Your task to perform on an android device: turn vacation reply on in the gmail app Image 0: 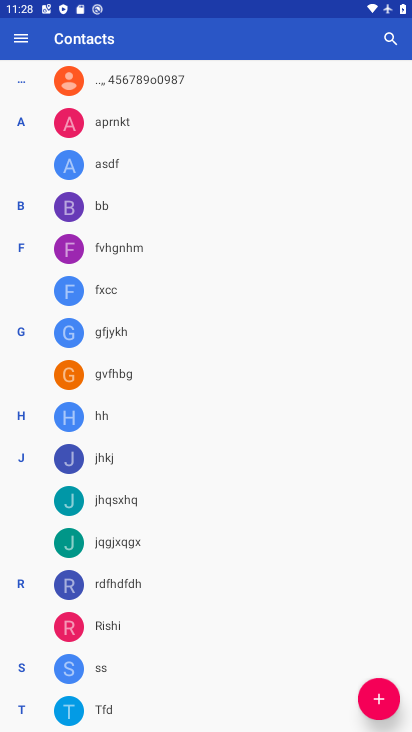
Step 0: press home button
Your task to perform on an android device: turn vacation reply on in the gmail app Image 1: 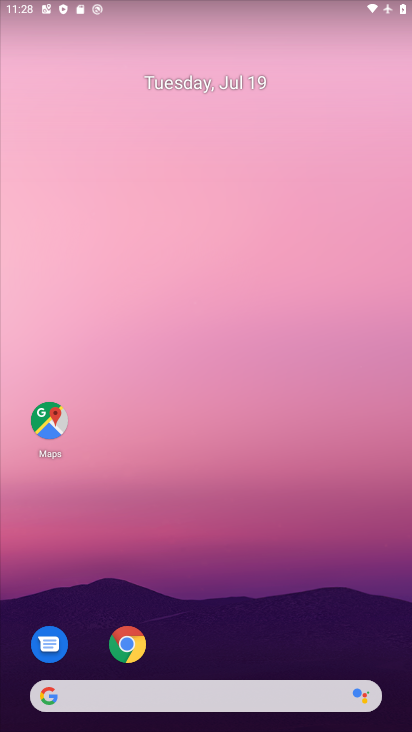
Step 1: drag from (27, 671) to (310, 21)
Your task to perform on an android device: turn vacation reply on in the gmail app Image 2: 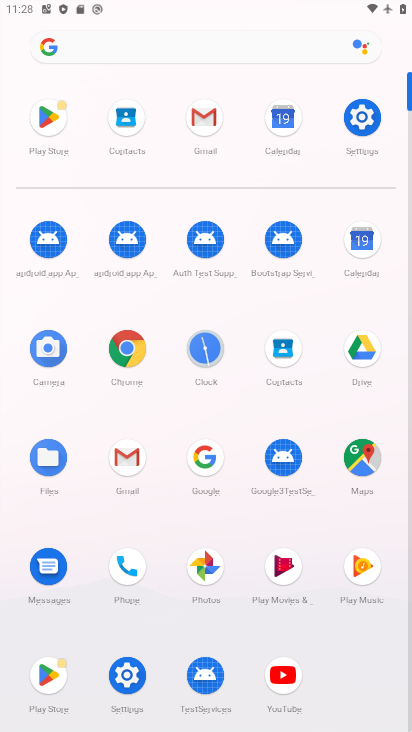
Step 2: click (141, 449)
Your task to perform on an android device: turn vacation reply on in the gmail app Image 3: 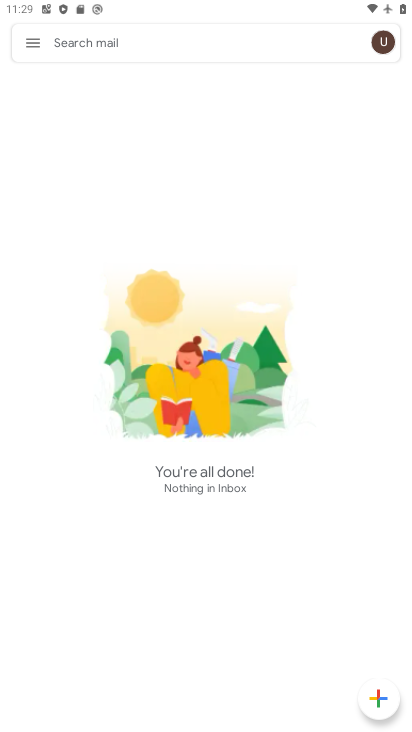
Step 3: click (27, 39)
Your task to perform on an android device: turn vacation reply on in the gmail app Image 4: 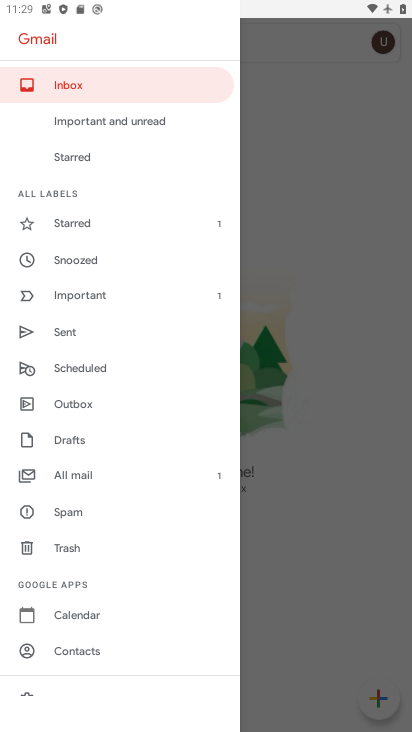
Step 4: drag from (98, 625) to (178, 218)
Your task to perform on an android device: turn vacation reply on in the gmail app Image 5: 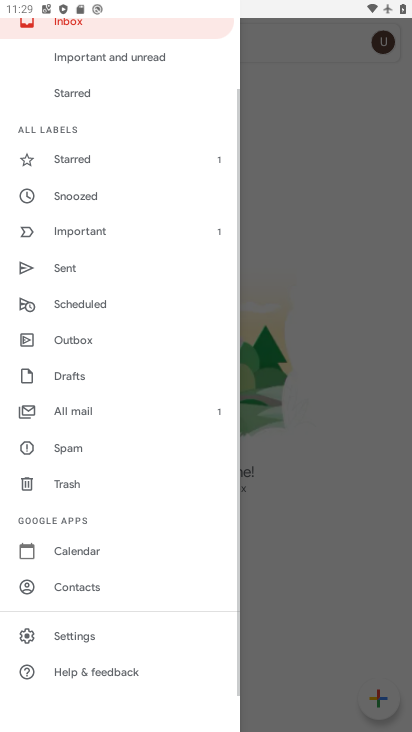
Step 5: click (99, 632)
Your task to perform on an android device: turn vacation reply on in the gmail app Image 6: 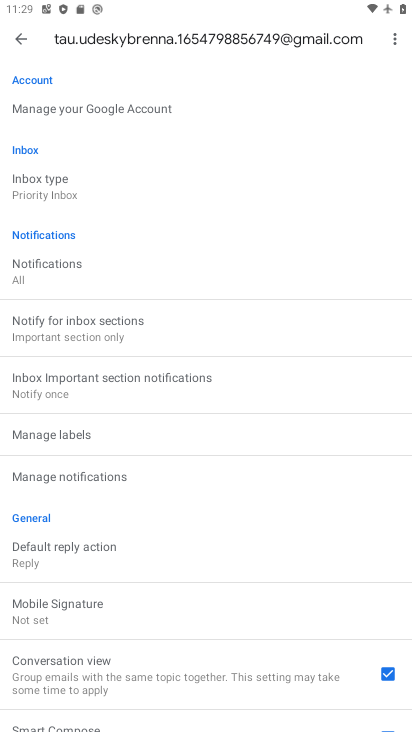
Step 6: drag from (156, 582) to (171, 384)
Your task to perform on an android device: turn vacation reply on in the gmail app Image 7: 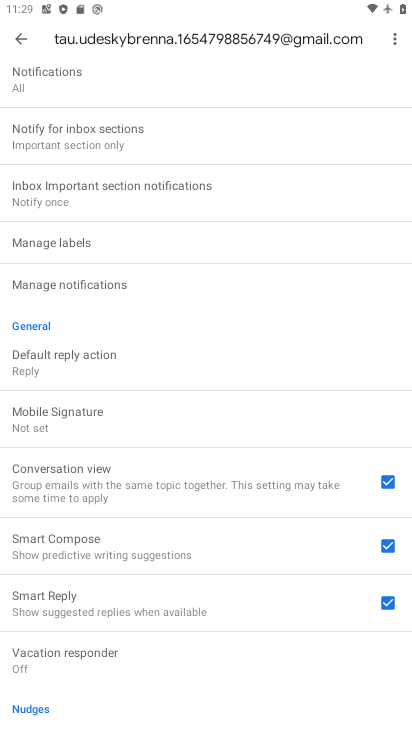
Step 7: click (35, 368)
Your task to perform on an android device: turn vacation reply on in the gmail app Image 8: 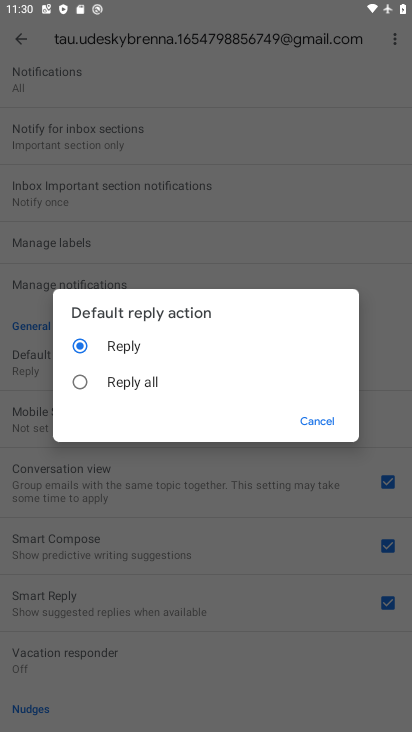
Step 8: click (314, 425)
Your task to perform on an android device: turn vacation reply on in the gmail app Image 9: 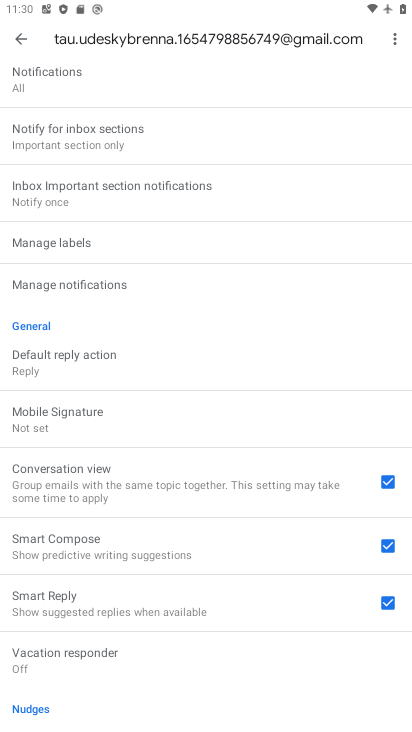
Step 9: task complete